Your task to perform on an android device: change the clock display to show seconds Image 0: 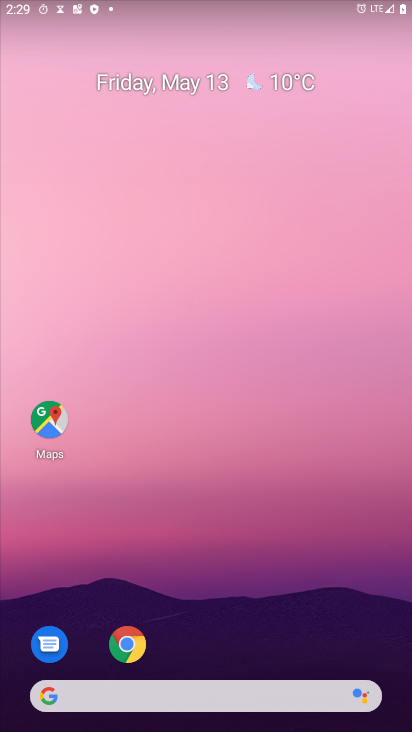
Step 0: drag from (211, 725) to (209, 233)
Your task to perform on an android device: change the clock display to show seconds Image 1: 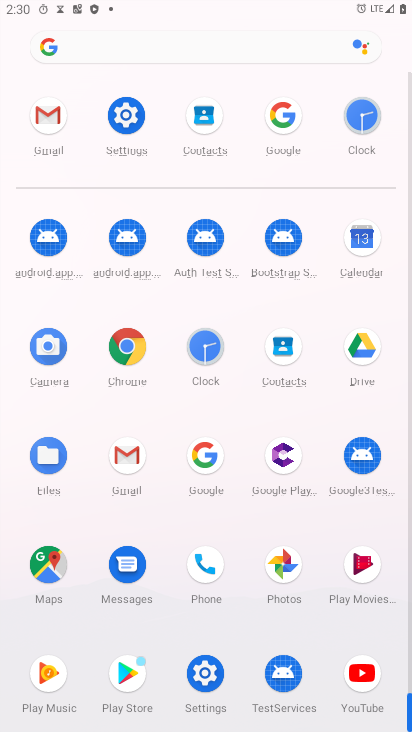
Step 1: click (203, 360)
Your task to perform on an android device: change the clock display to show seconds Image 2: 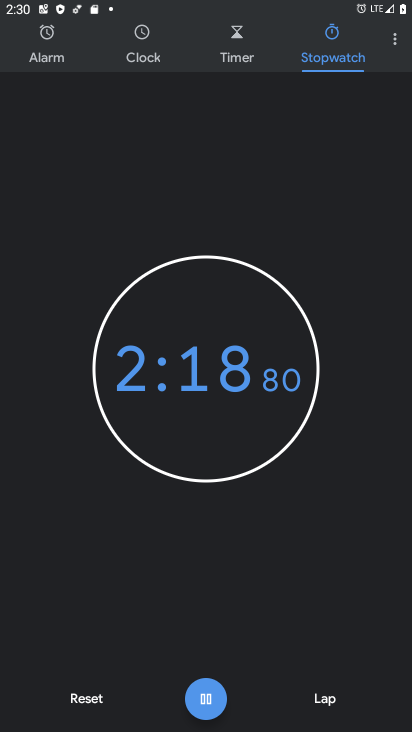
Step 2: click (394, 38)
Your task to perform on an android device: change the clock display to show seconds Image 3: 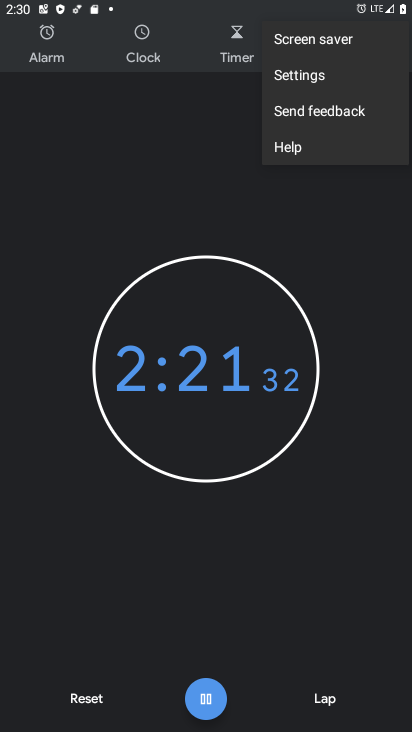
Step 3: click (291, 79)
Your task to perform on an android device: change the clock display to show seconds Image 4: 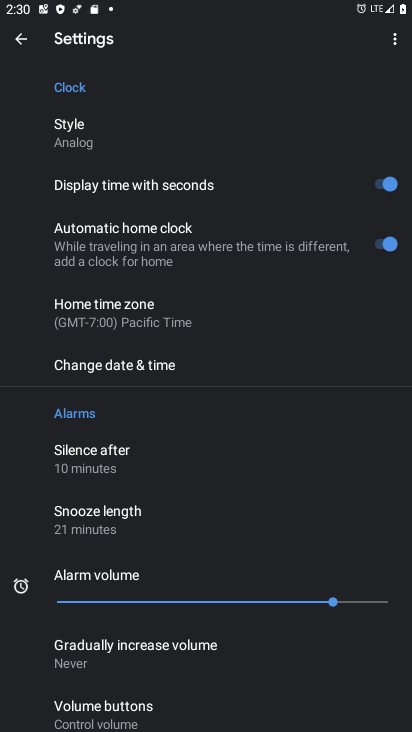
Step 4: task complete